Your task to perform on an android device: Go to display settings Image 0: 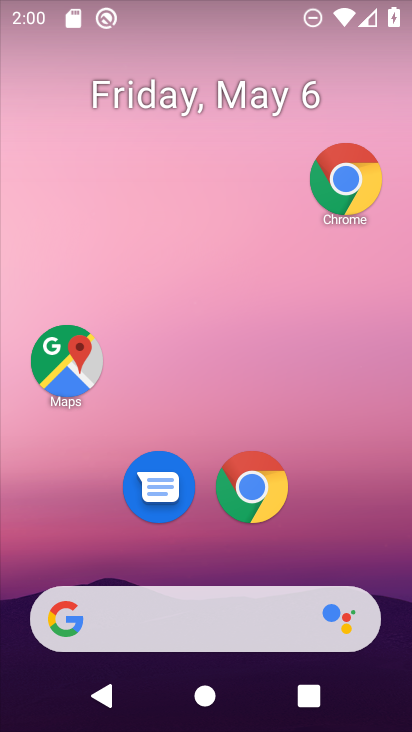
Step 0: drag from (318, 410) to (244, 34)
Your task to perform on an android device: Go to display settings Image 1: 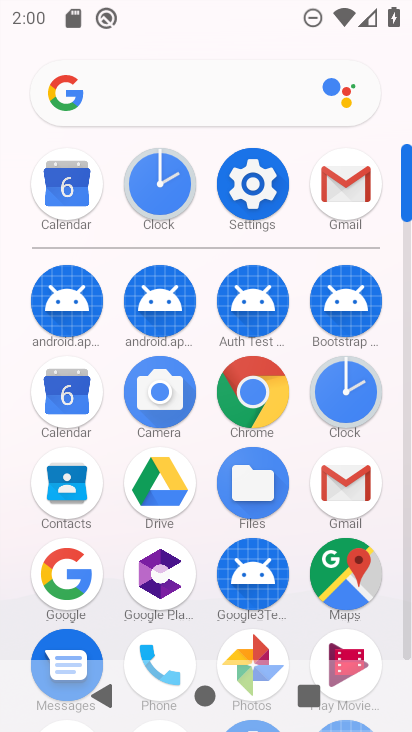
Step 1: click (242, 219)
Your task to perform on an android device: Go to display settings Image 2: 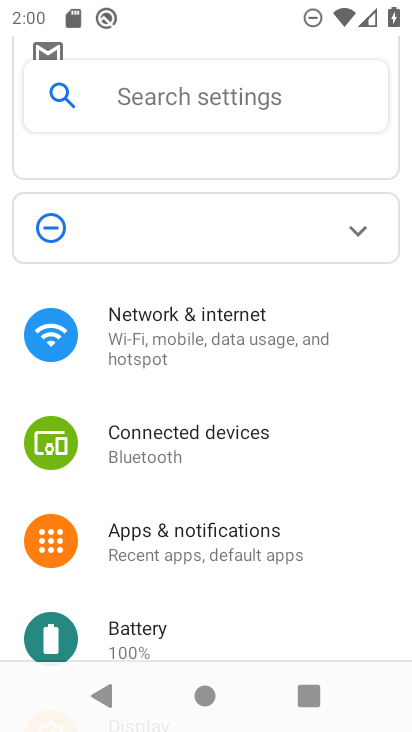
Step 2: drag from (199, 586) to (229, 322)
Your task to perform on an android device: Go to display settings Image 3: 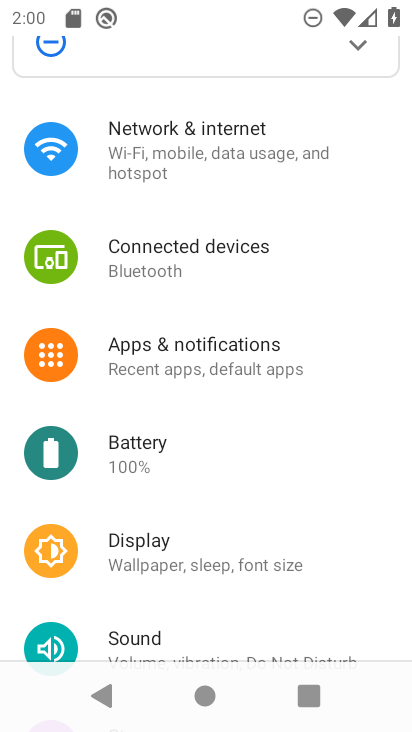
Step 3: click (176, 537)
Your task to perform on an android device: Go to display settings Image 4: 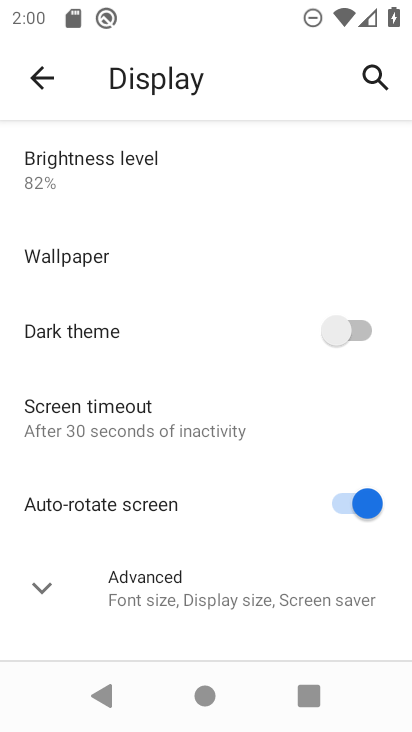
Step 4: task complete